Your task to perform on an android device: turn on airplane mode Image 0: 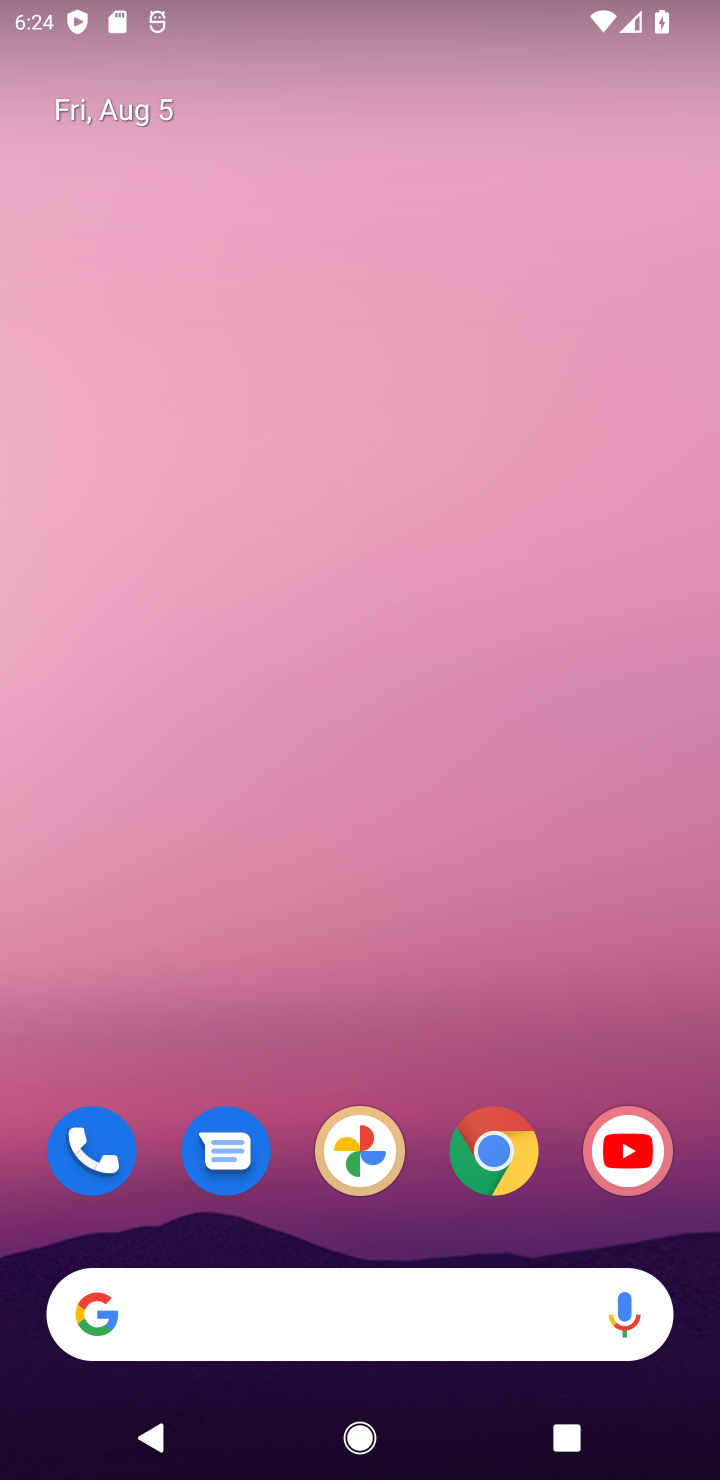
Step 0: drag from (363, 1252) to (364, 46)
Your task to perform on an android device: turn on airplane mode Image 1: 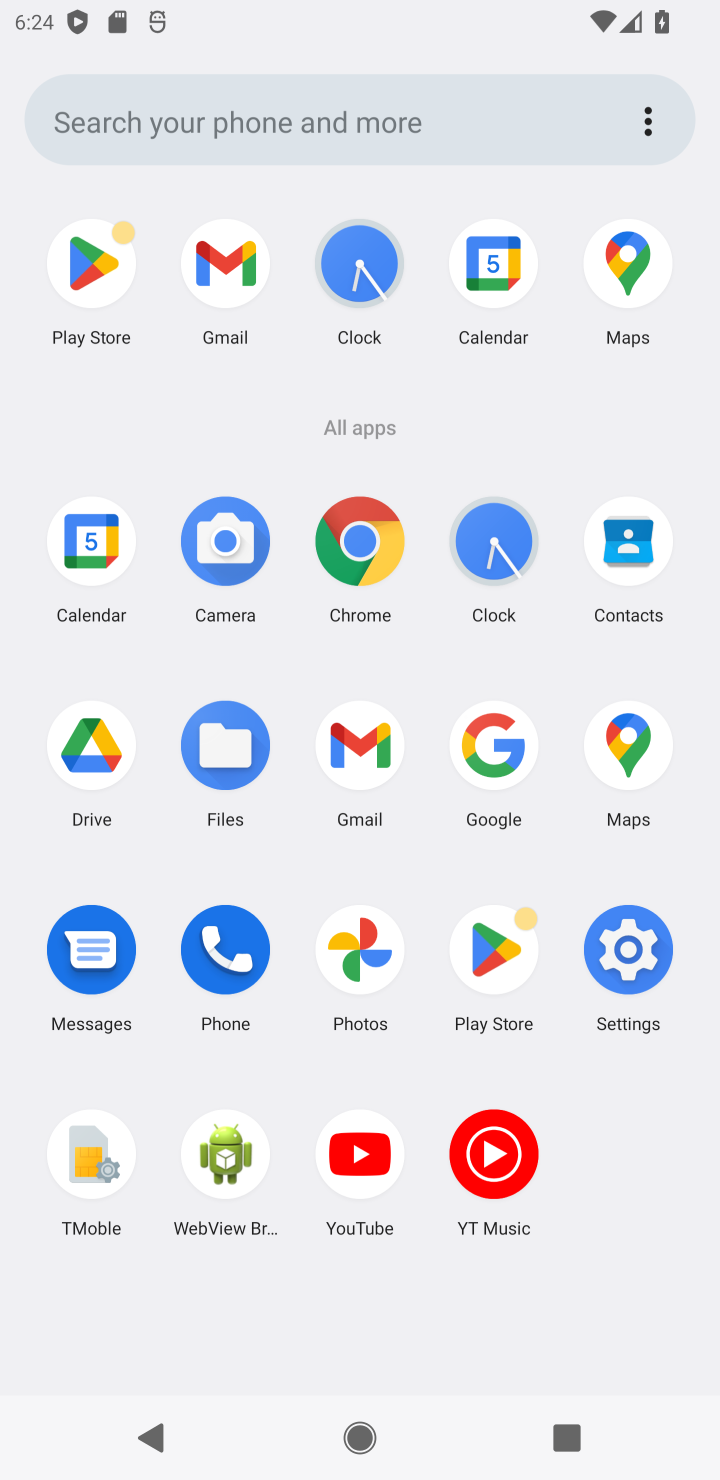
Step 1: click (646, 987)
Your task to perform on an android device: turn on airplane mode Image 2: 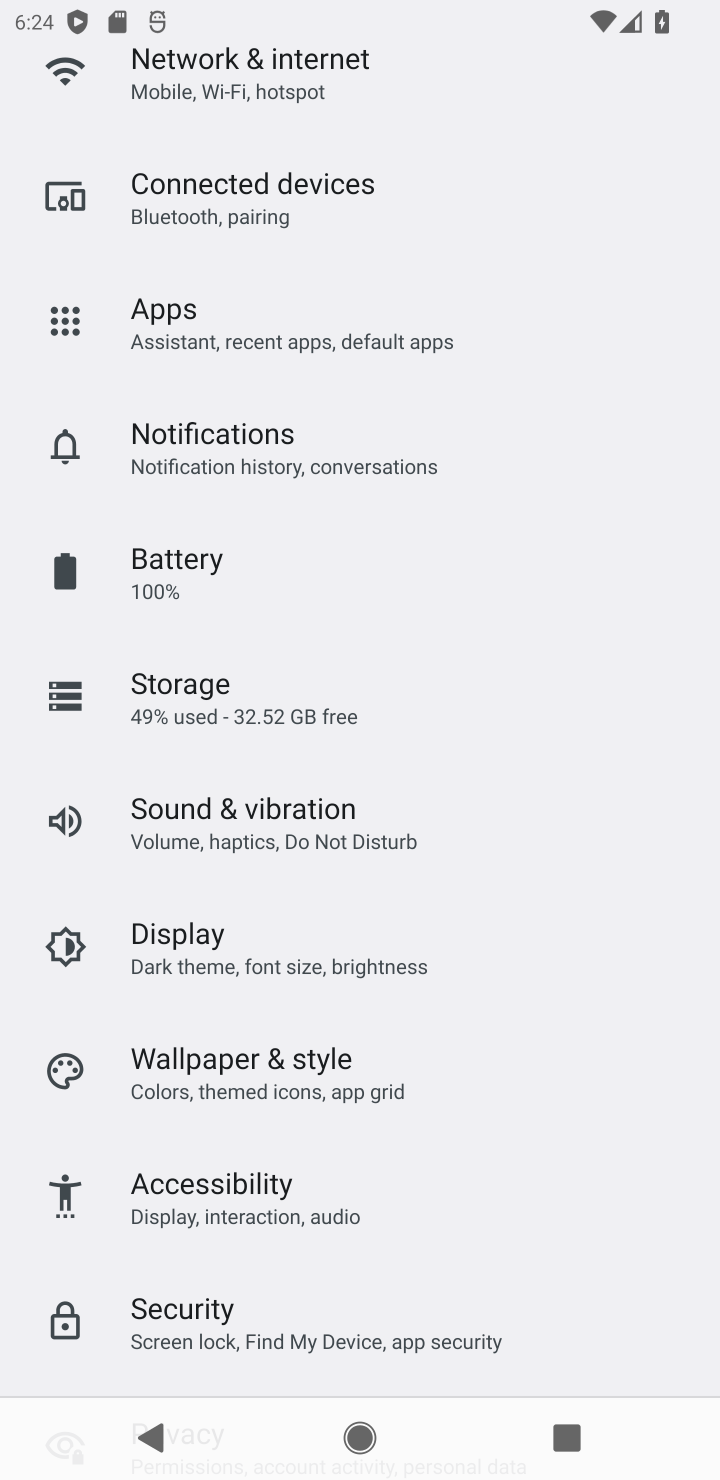
Step 2: drag from (395, 222) to (318, 819)
Your task to perform on an android device: turn on airplane mode Image 3: 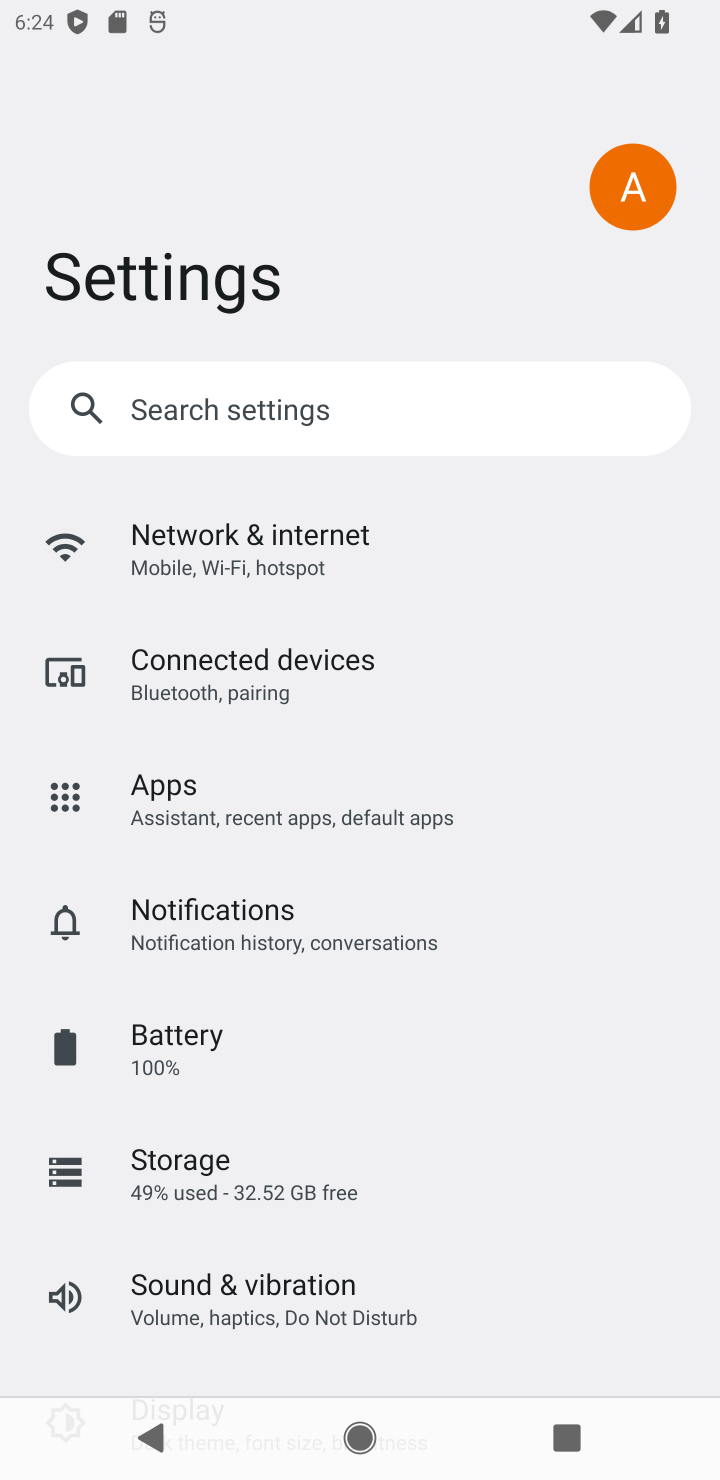
Step 3: click (149, 532)
Your task to perform on an android device: turn on airplane mode Image 4: 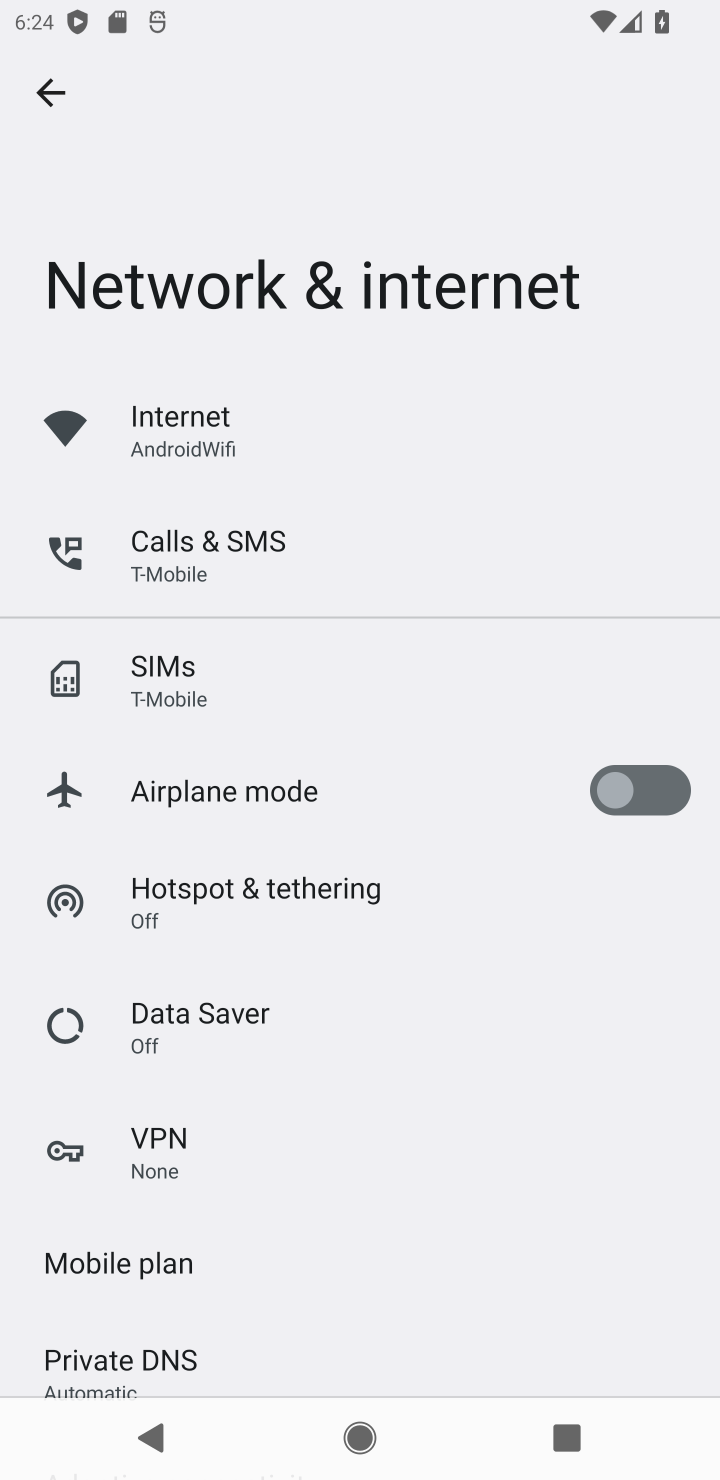
Step 4: click (621, 792)
Your task to perform on an android device: turn on airplane mode Image 5: 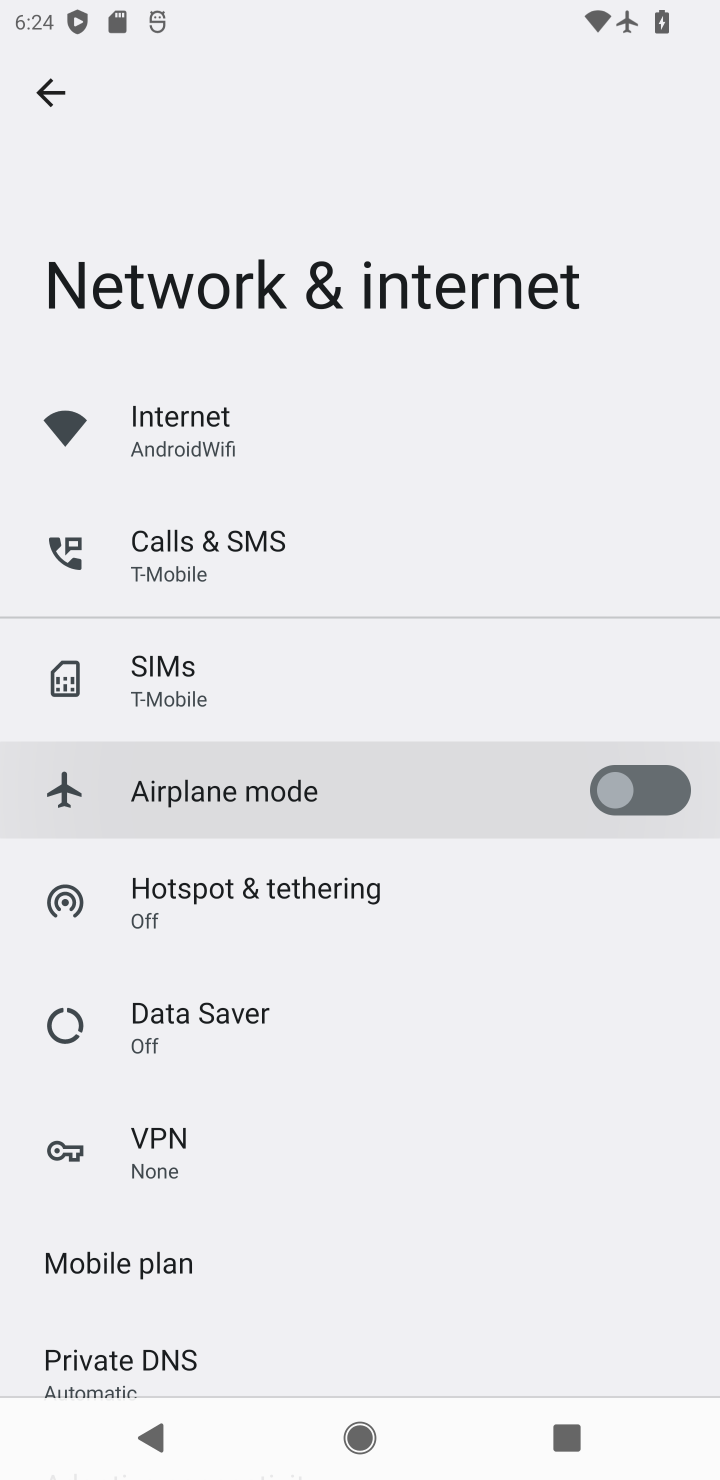
Step 5: task complete